Your task to perform on an android device: move a message to another label in the gmail app Image 0: 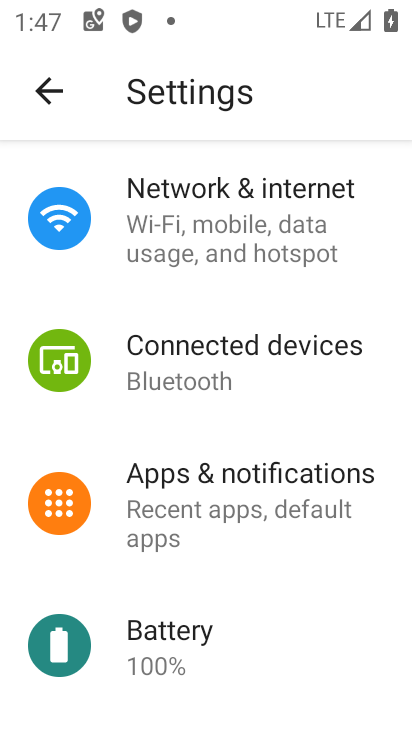
Step 0: press home button
Your task to perform on an android device: move a message to another label in the gmail app Image 1: 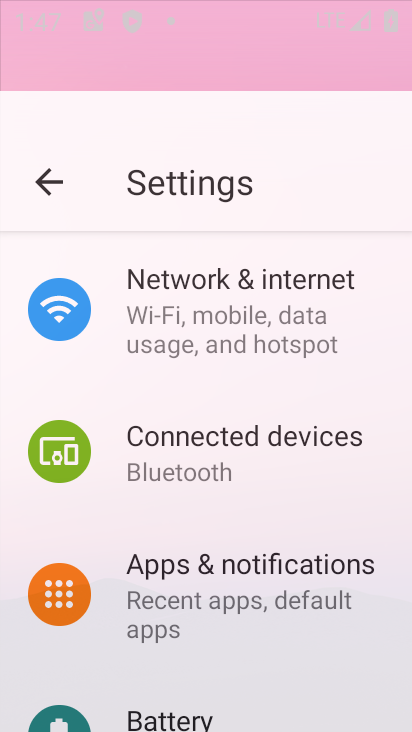
Step 1: drag from (144, 604) to (281, 30)
Your task to perform on an android device: move a message to another label in the gmail app Image 2: 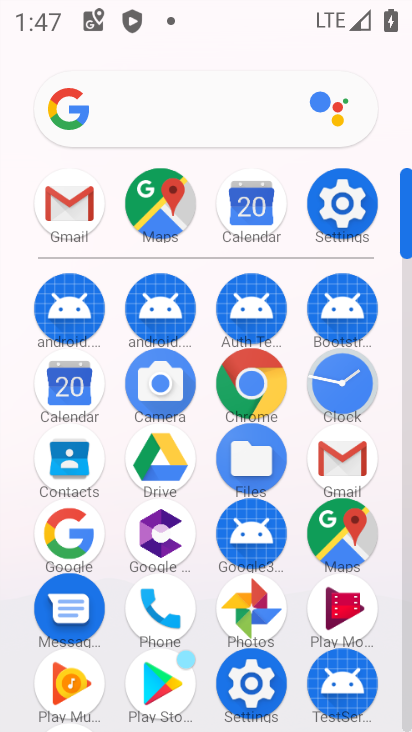
Step 2: click (339, 452)
Your task to perform on an android device: move a message to another label in the gmail app Image 3: 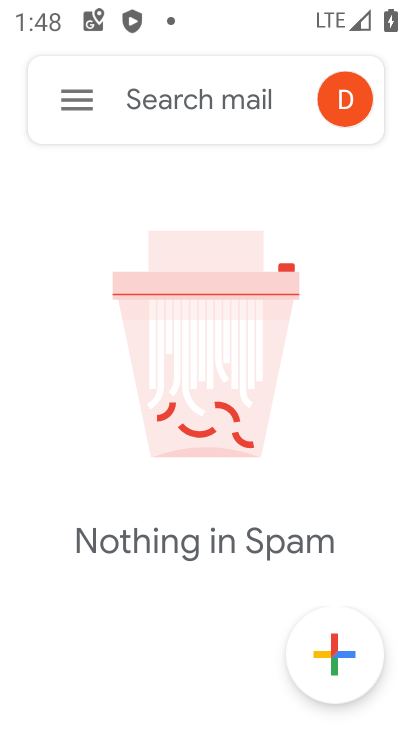
Step 3: click (73, 109)
Your task to perform on an android device: move a message to another label in the gmail app Image 4: 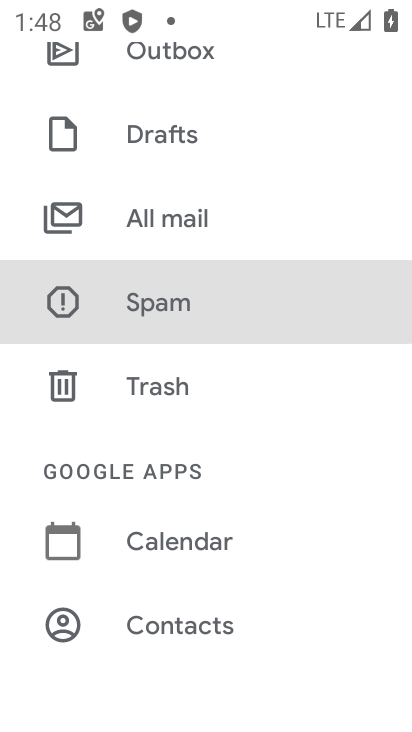
Step 4: task complete